Your task to perform on an android device: Open display settings Image 0: 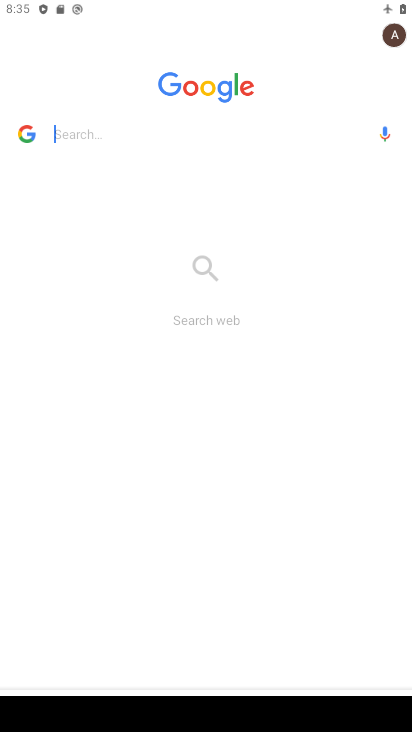
Step 0: press home button
Your task to perform on an android device: Open display settings Image 1: 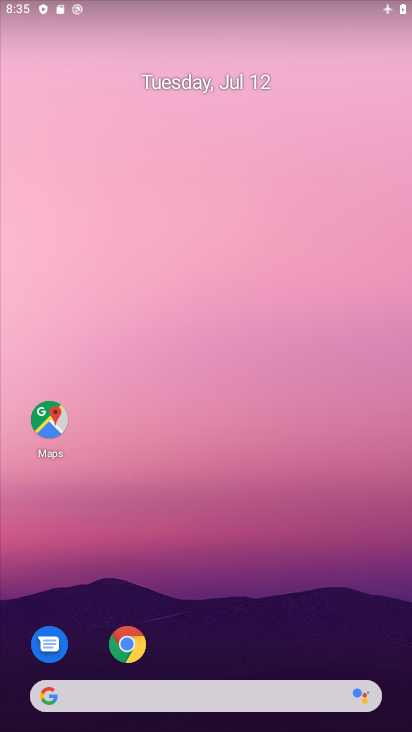
Step 1: drag from (216, 646) to (197, 53)
Your task to perform on an android device: Open display settings Image 2: 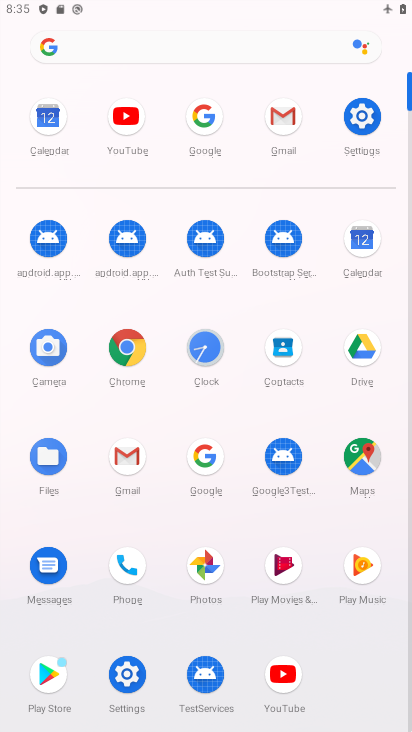
Step 2: click (368, 120)
Your task to perform on an android device: Open display settings Image 3: 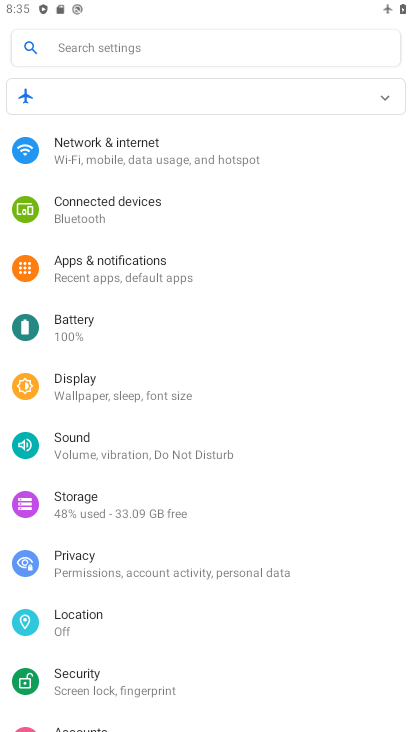
Step 3: click (114, 383)
Your task to perform on an android device: Open display settings Image 4: 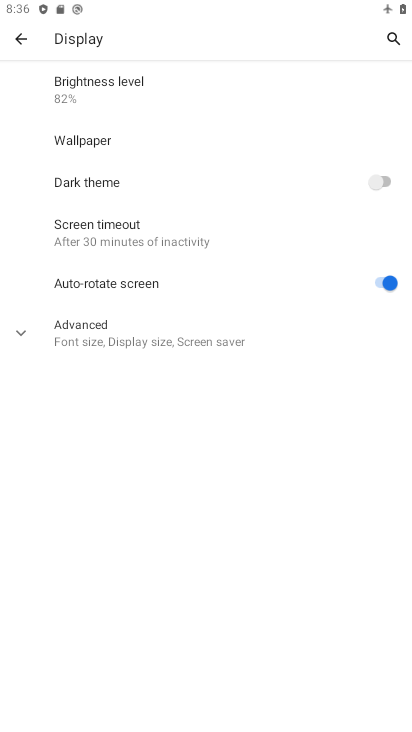
Step 4: task complete